Your task to perform on an android device: turn on airplane mode Image 0: 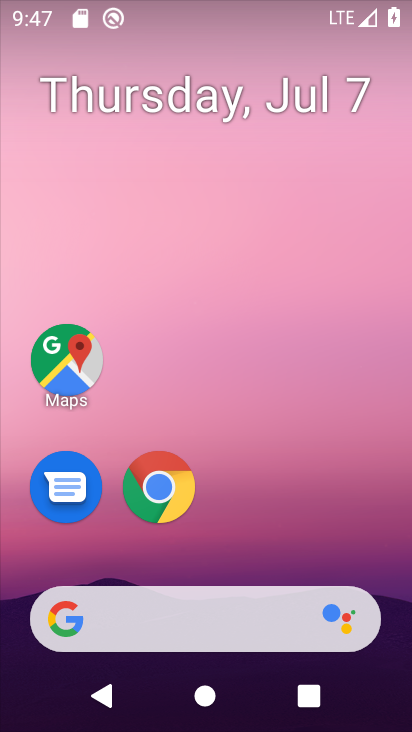
Step 0: drag from (366, 518) to (364, 117)
Your task to perform on an android device: turn on airplane mode Image 1: 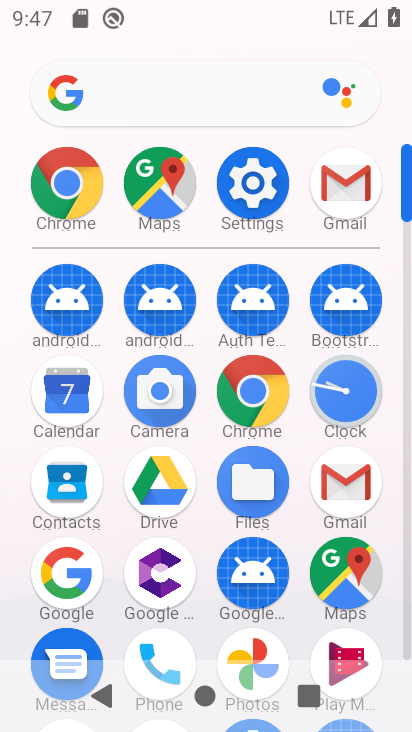
Step 1: click (266, 207)
Your task to perform on an android device: turn on airplane mode Image 2: 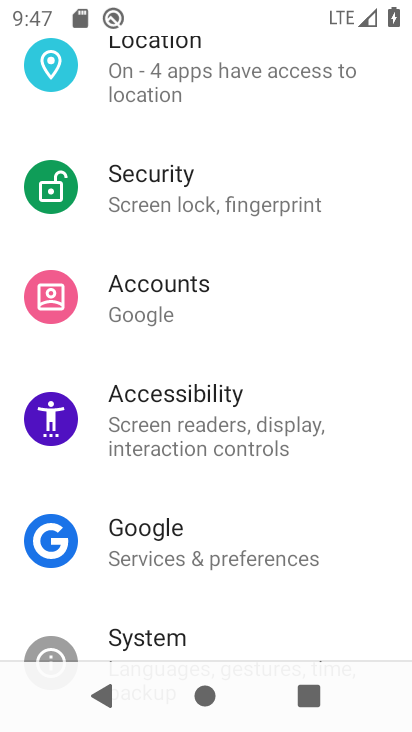
Step 2: drag from (347, 267) to (360, 436)
Your task to perform on an android device: turn on airplane mode Image 3: 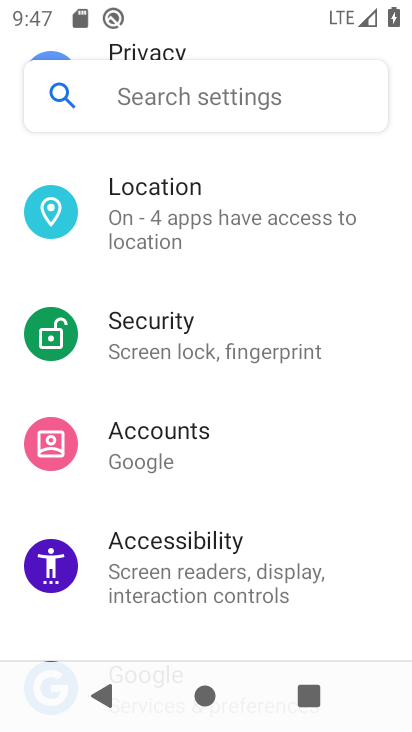
Step 3: drag from (376, 277) to (375, 419)
Your task to perform on an android device: turn on airplane mode Image 4: 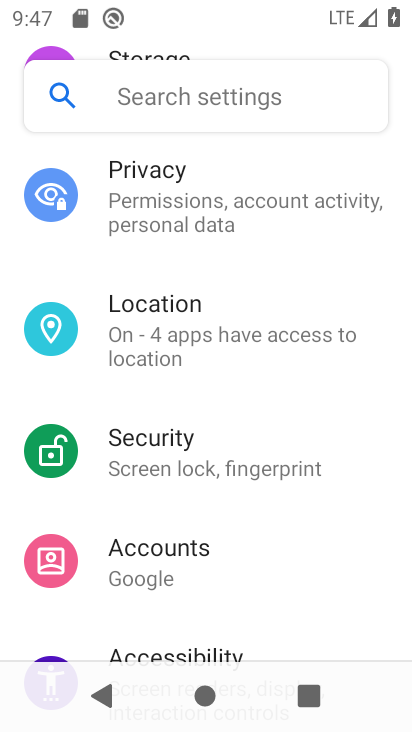
Step 4: drag from (356, 264) to (351, 404)
Your task to perform on an android device: turn on airplane mode Image 5: 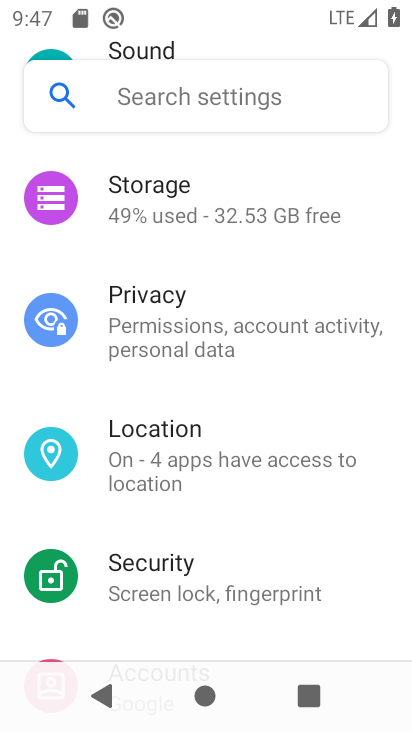
Step 5: drag from (357, 196) to (355, 328)
Your task to perform on an android device: turn on airplane mode Image 6: 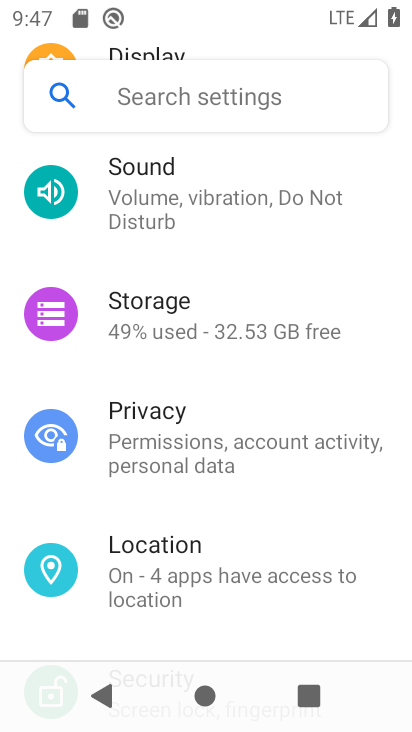
Step 6: drag from (358, 169) to (361, 312)
Your task to perform on an android device: turn on airplane mode Image 7: 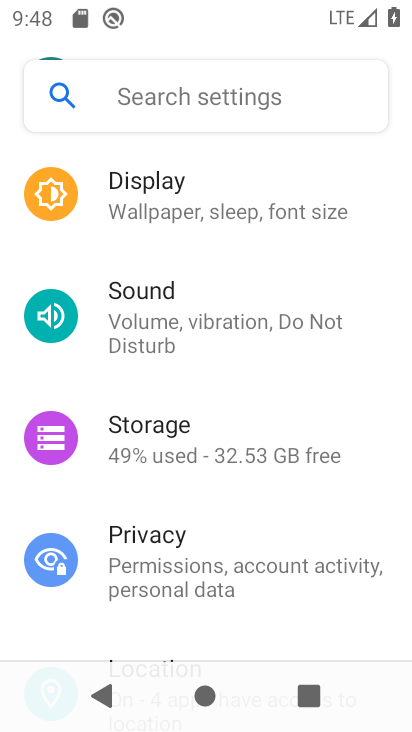
Step 7: drag from (369, 171) to (369, 352)
Your task to perform on an android device: turn on airplane mode Image 8: 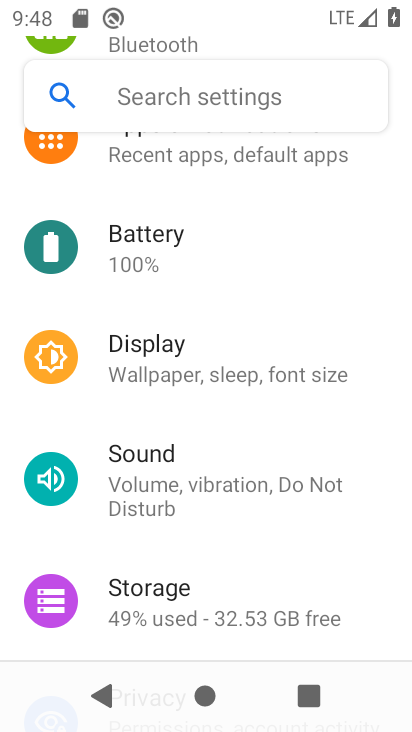
Step 8: drag from (368, 175) to (354, 351)
Your task to perform on an android device: turn on airplane mode Image 9: 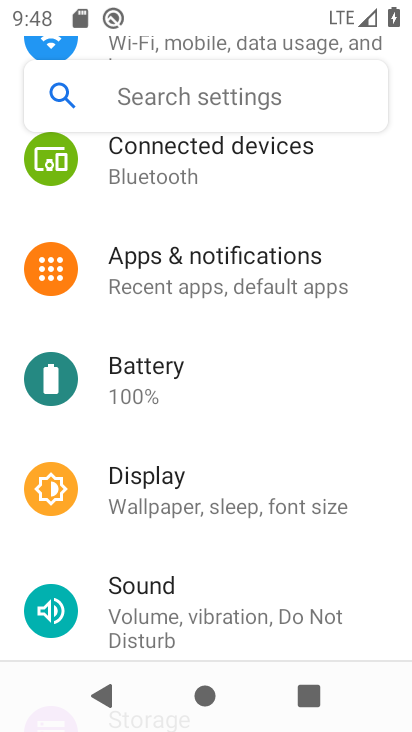
Step 9: drag from (354, 196) to (350, 351)
Your task to perform on an android device: turn on airplane mode Image 10: 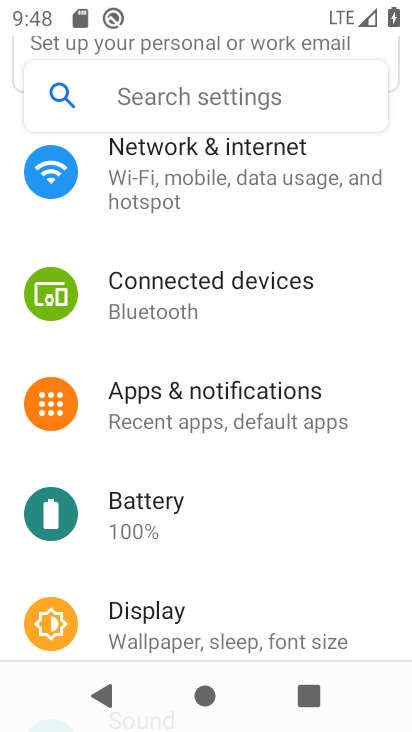
Step 10: drag from (346, 158) to (347, 324)
Your task to perform on an android device: turn on airplane mode Image 11: 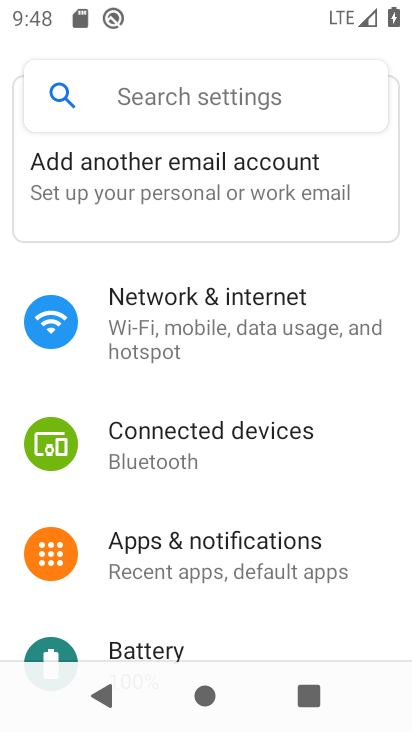
Step 11: drag from (374, 154) to (370, 387)
Your task to perform on an android device: turn on airplane mode Image 12: 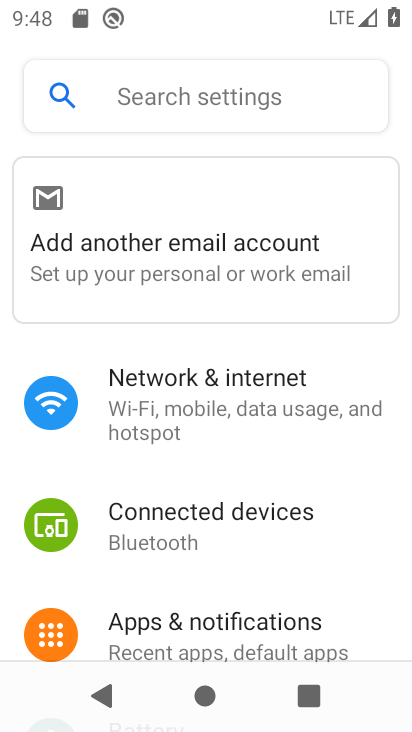
Step 12: click (274, 404)
Your task to perform on an android device: turn on airplane mode Image 13: 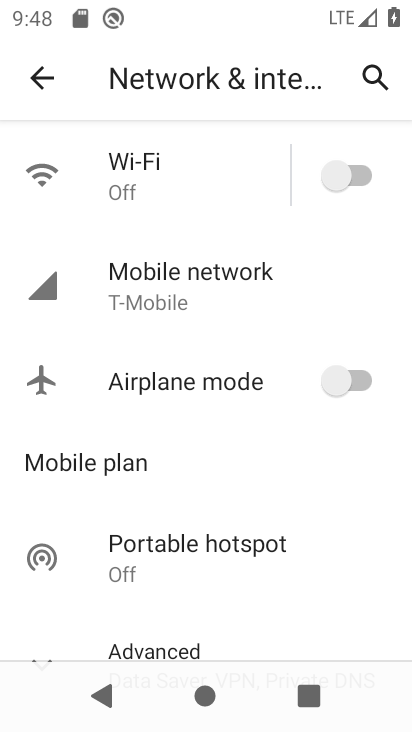
Step 13: drag from (294, 465) to (306, 320)
Your task to perform on an android device: turn on airplane mode Image 14: 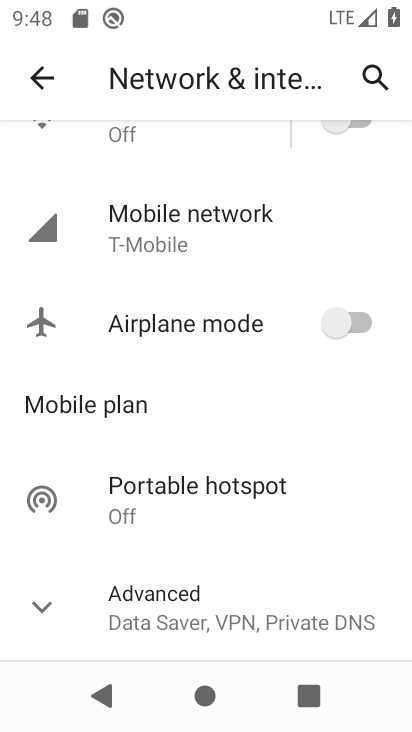
Step 14: click (347, 327)
Your task to perform on an android device: turn on airplane mode Image 15: 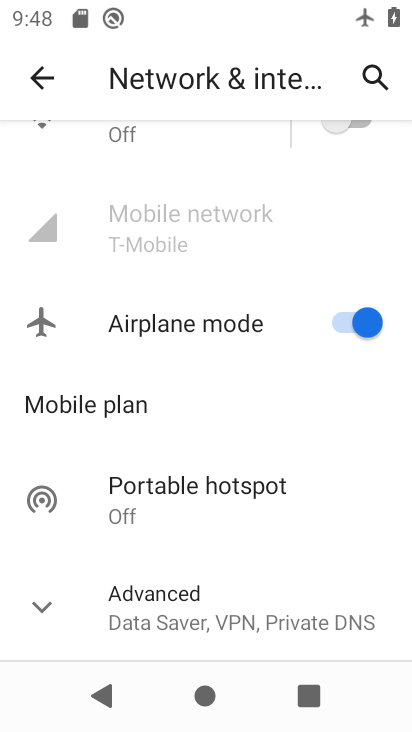
Step 15: task complete